Your task to perform on an android device: toggle show notifications on the lock screen Image 0: 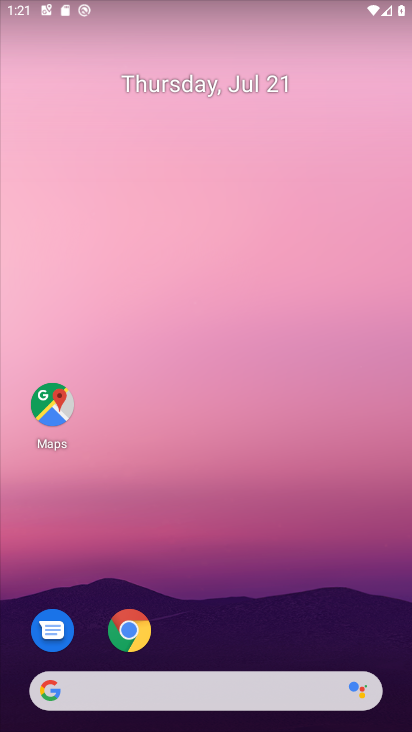
Step 0: press home button
Your task to perform on an android device: toggle show notifications on the lock screen Image 1: 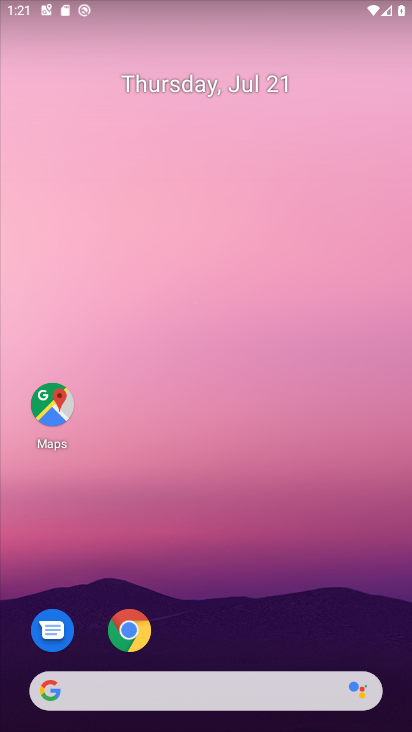
Step 1: drag from (266, 577) to (208, 62)
Your task to perform on an android device: toggle show notifications on the lock screen Image 2: 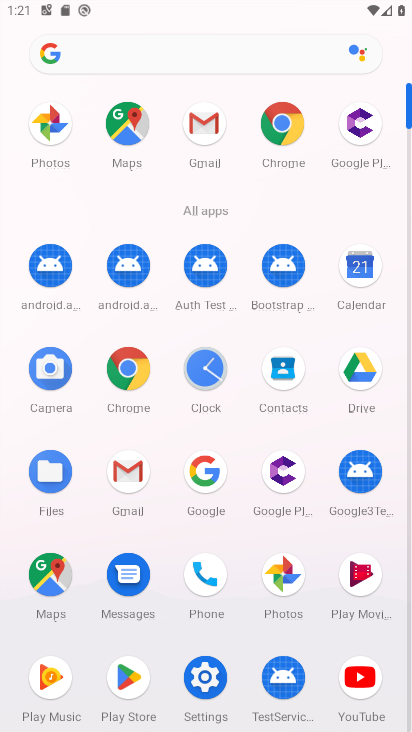
Step 2: click (209, 675)
Your task to perform on an android device: toggle show notifications on the lock screen Image 3: 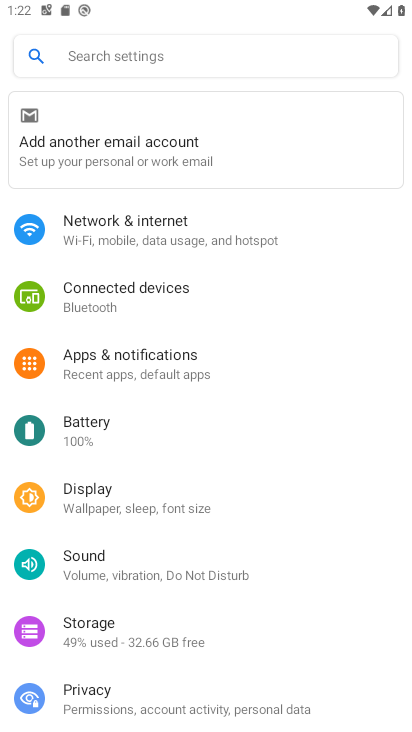
Step 3: click (75, 359)
Your task to perform on an android device: toggle show notifications on the lock screen Image 4: 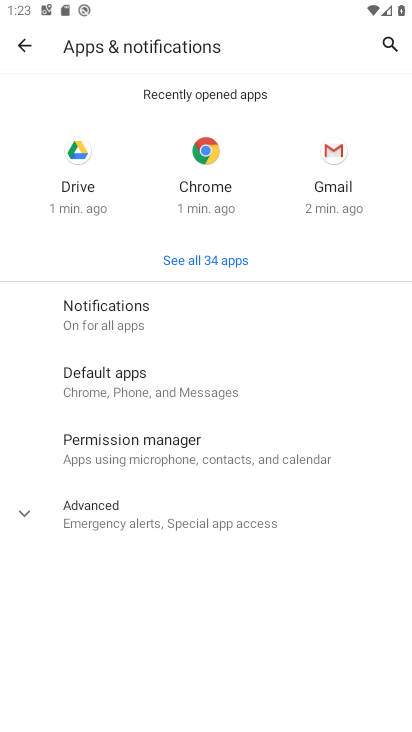
Step 4: click (101, 311)
Your task to perform on an android device: toggle show notifications on the lock screen Image 5: 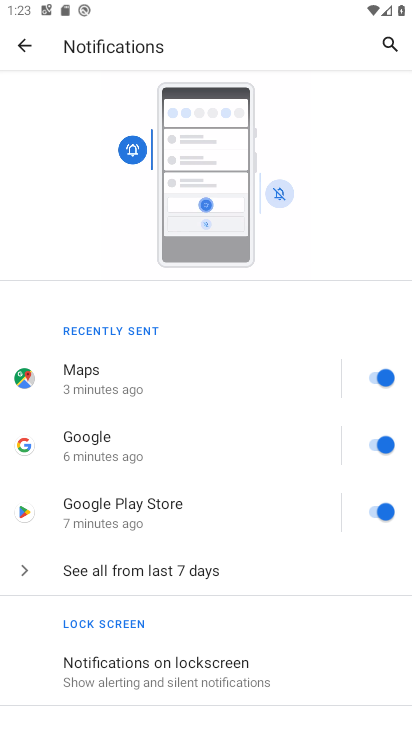
Step 5: click (157, 669)
Your task to perform on an android device: toggle show notifications on the lock screen Image 6: 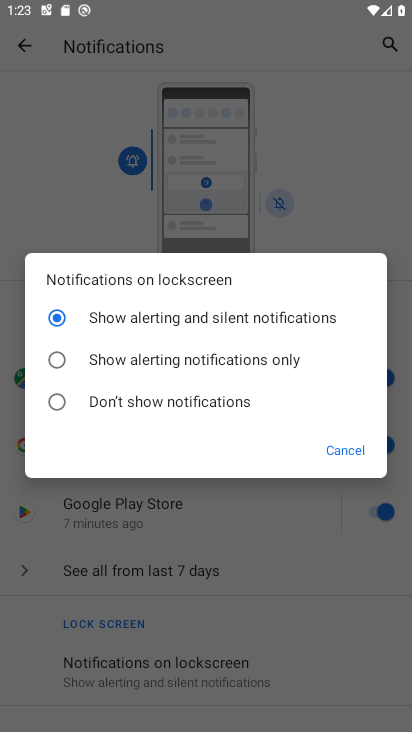
Step 6: click (102, 330)
Your task to perform on an android device: toggle show notifications on the lock screen Image 7: 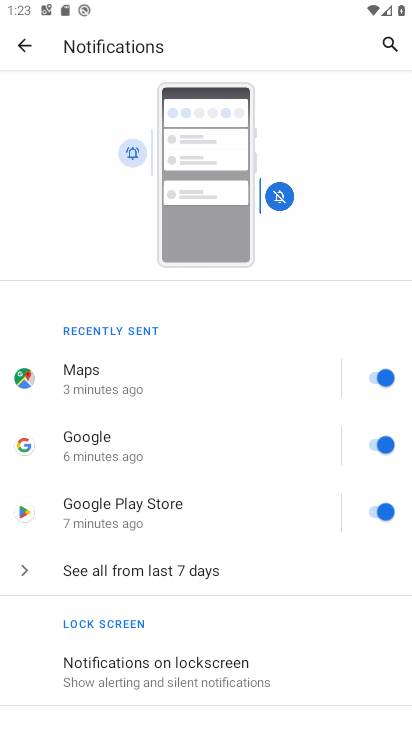
Step 7: task complete